Your task to perform on an android device: open sync settings in chrome Image 0: 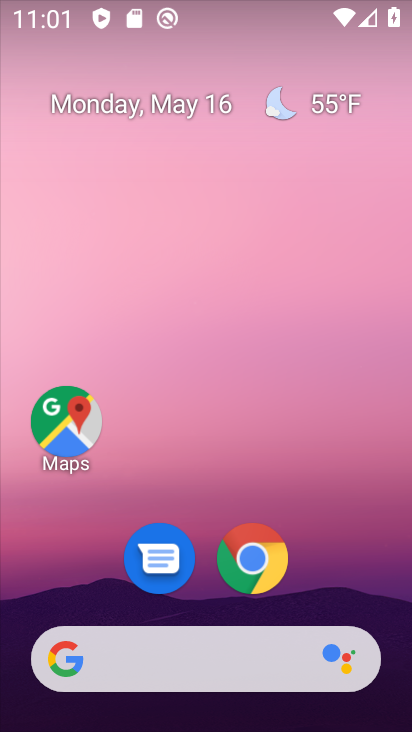
Step 0: click (249, 566)
Your task to perform on an android device: open sync settings in chrome Image 1: 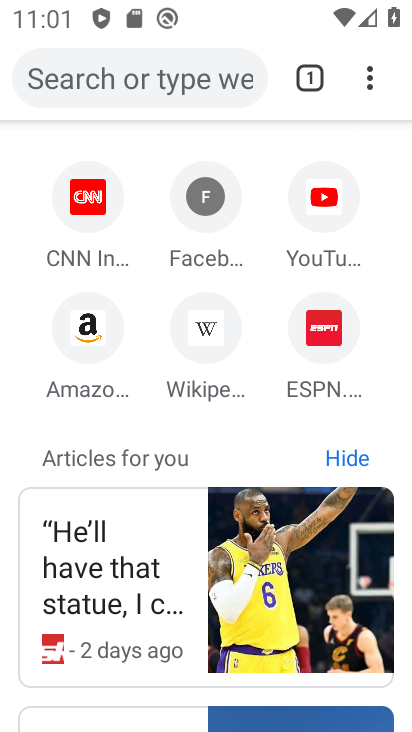
Step 1: click (357, 83)
Your task to perform on an android device: open sync settings in chrome Image 2: 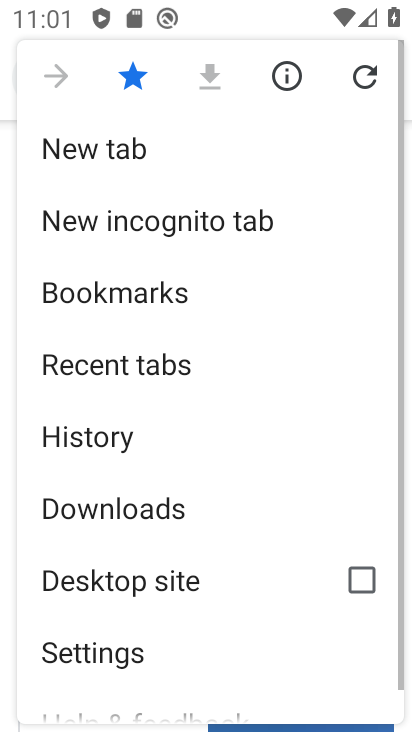
Step 2: click (97, 650)
Your task to perform on an android device: open sync settings in chrome Image 3: 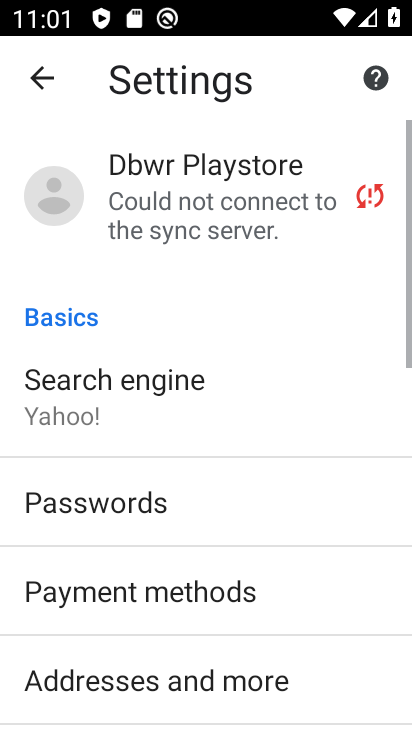
Step 3: drag from (224, 624) to (244, 125)
Your task to perform on an android device: open sync settings in chrome Image 4: 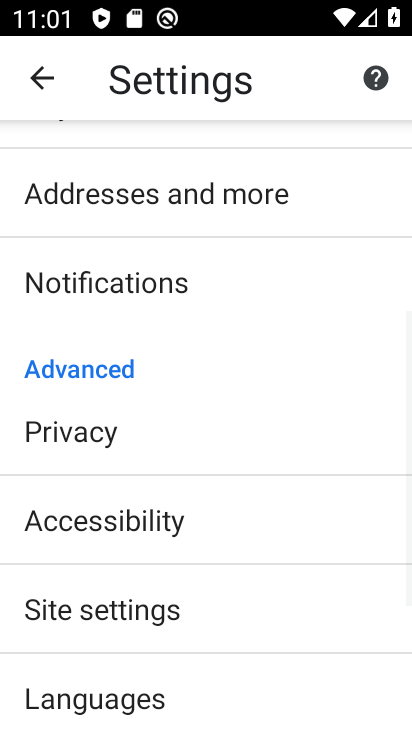
Step 4: click (130, 594)
Your task to perform on an android device: open sync settings in chrome Image 5: 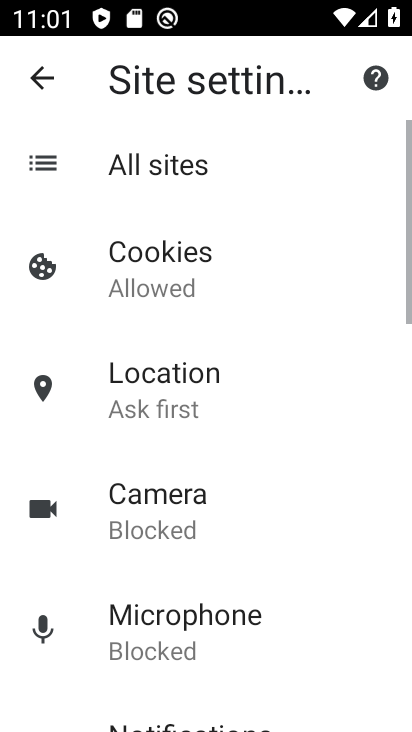
Step 5: drag from (246, 592) to (283, 41)
Your task to perform on an android device: open sync settings in chrome Image 6: 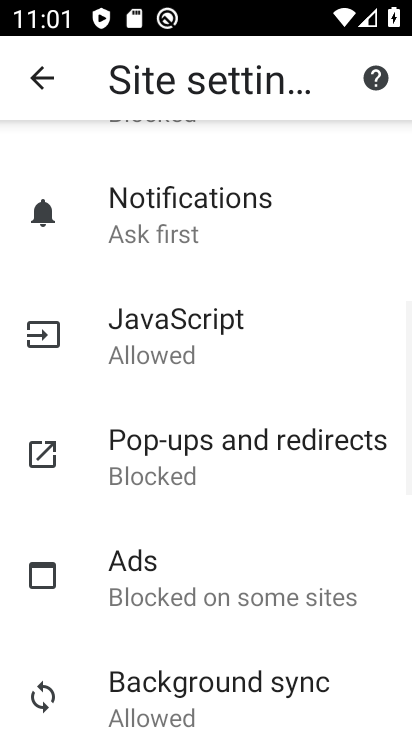
Step 6: drag from (215, 570) to (204, 350)
Your task to perform on an android device: open sync settings in chrome Image 7: 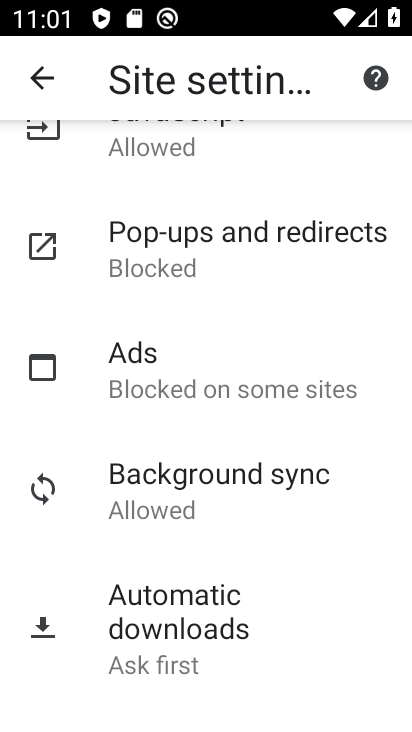
Step 7: click (112, 503)
Your task to perform on an android device: open sync settings in chrome Image 8: 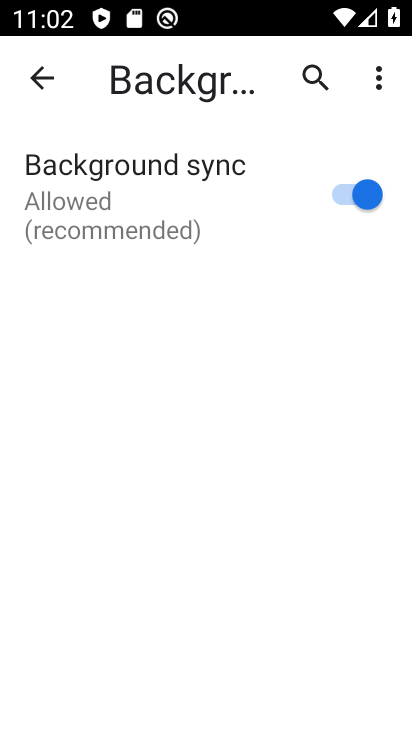
Step 8: task complete